Your task to perform on an android device: open the mobile data screen to see how much data has been used Image 0: 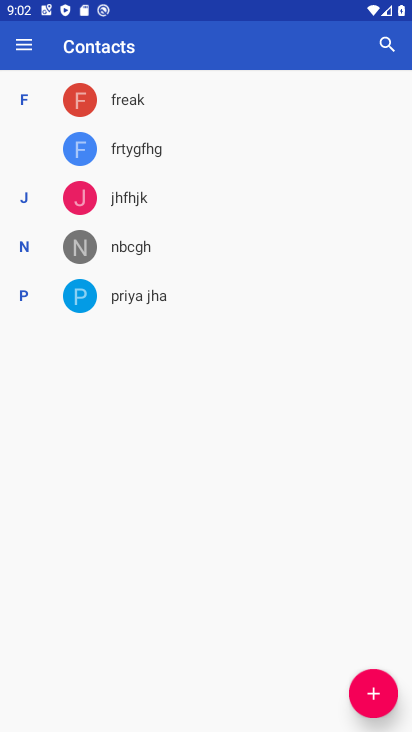
Step 0: press home button
Your task to perform on an android device: open the mobile data screen to see how much data has been used Image 1: 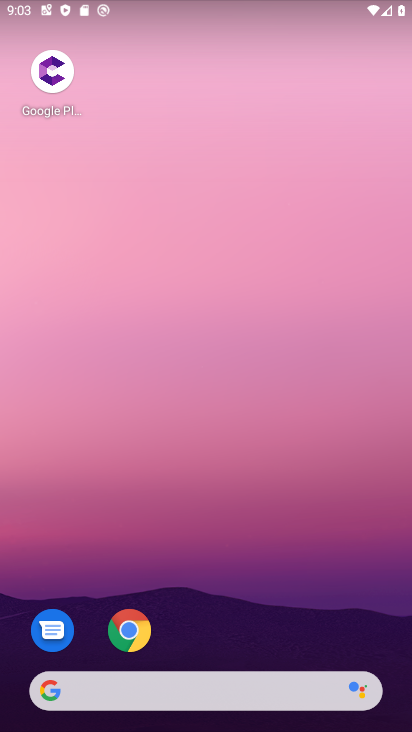
Step 1: drag from (314, 623) to (340, 6)
Your task to perform on an android device: open the mobile data screen to see how much data has been used Image 2: 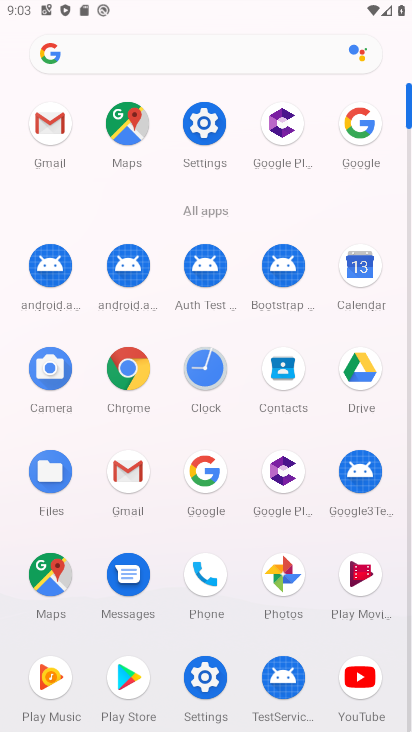
Step 2: click (191, 109)
Your task to perform on an android device: open the mobile data screen to see how much data has been used Image 3: 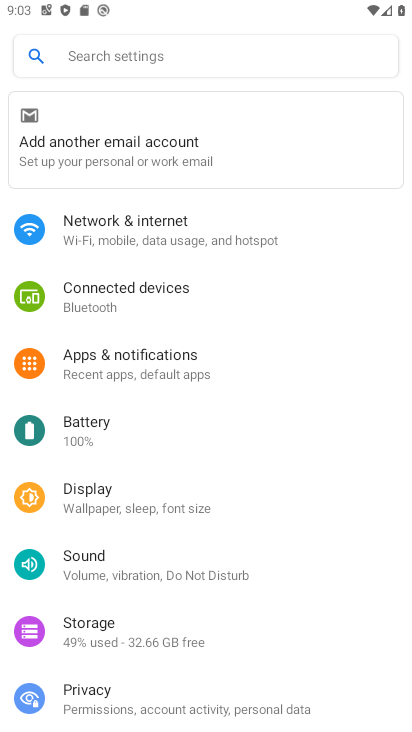
Step 3: click (188, 218)
Your task to perform on an android device: open the mobile data screen to see how much data has been used Image 4: 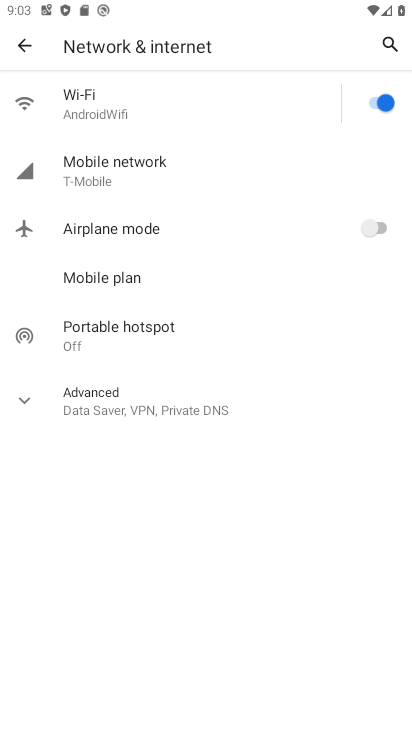
Step 4: click (106, 167)
Your task to perform on an android device: open the mobile data screen to see how much data has been used Image 5: 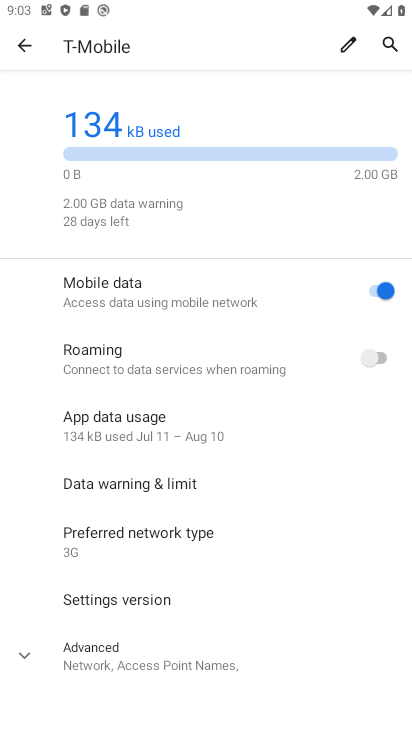
Step 5: click (113, 440)
Your task to perform on an android device: open the mobile data screen to see how much data has been used Image 6: 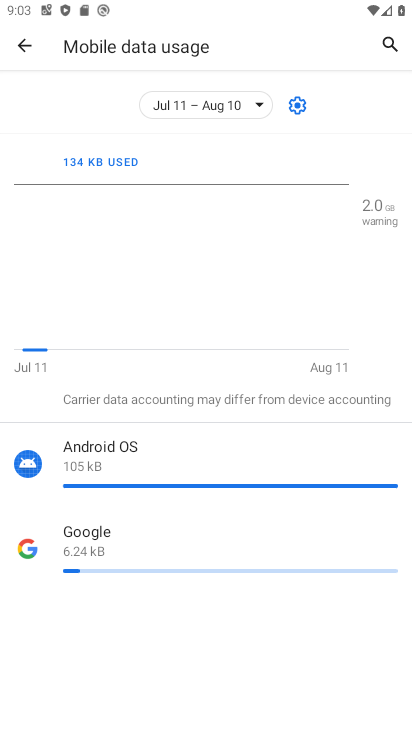
Step 6: task complete